Your task to perform on an android device: Open location settings Image 0: 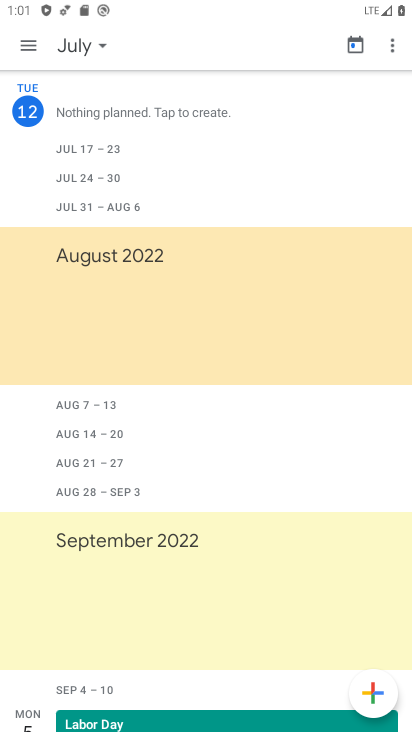
Step 0: press home button
Your task to perform on an android device: Open location settings Image 1: 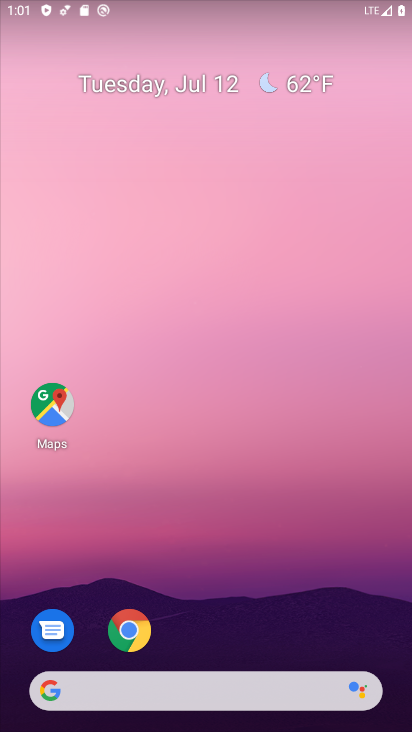
Step 1: drag from (240, 619) to (225, 81)
Your task to perform on an android device: Open location settings Image 2: 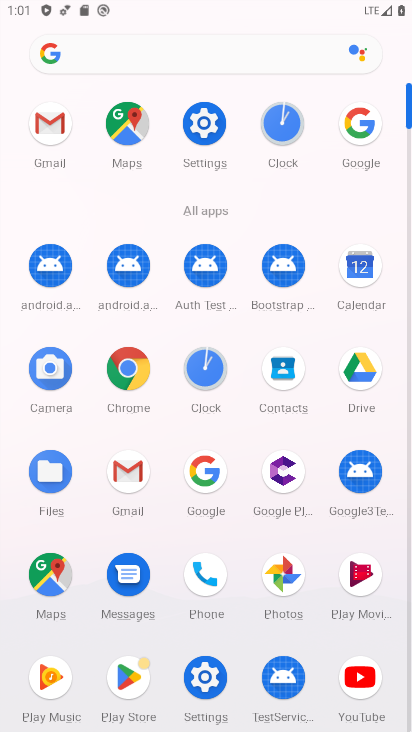
Step 2: click (201, 126)
Your task to perform on an android device: Open location settings Image 3: 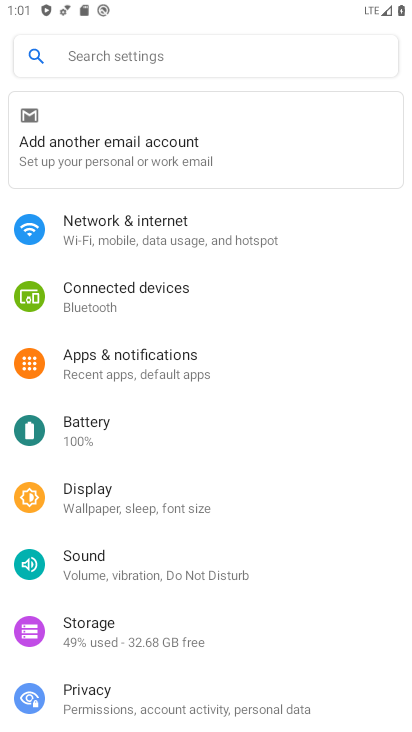
Step 3: drag from (136, 681) to (178, 367)
Your task to perform on an android device: Open location settings Image 4: 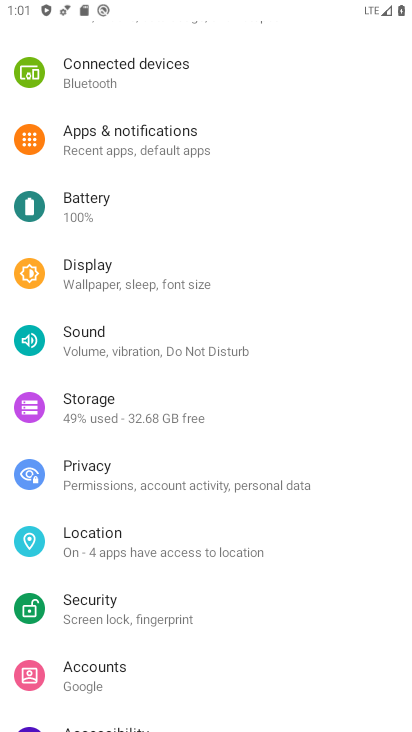
Step 4: click (124, 525)
Your task to perform on an android device: Open location settings Image 5: 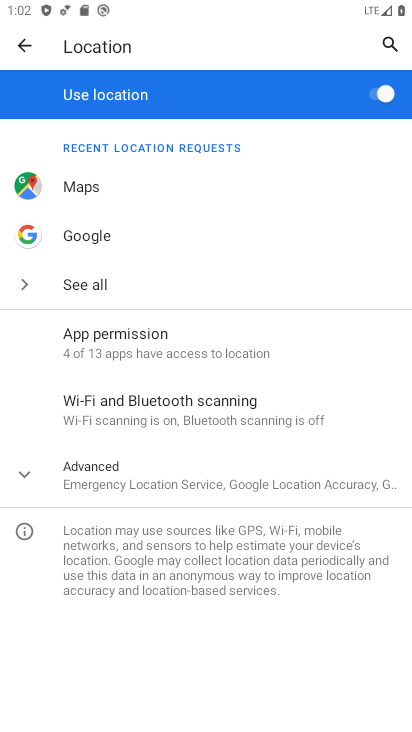
Step 5: task complete